Your task to perform on an android device: turn on location history Image 0: 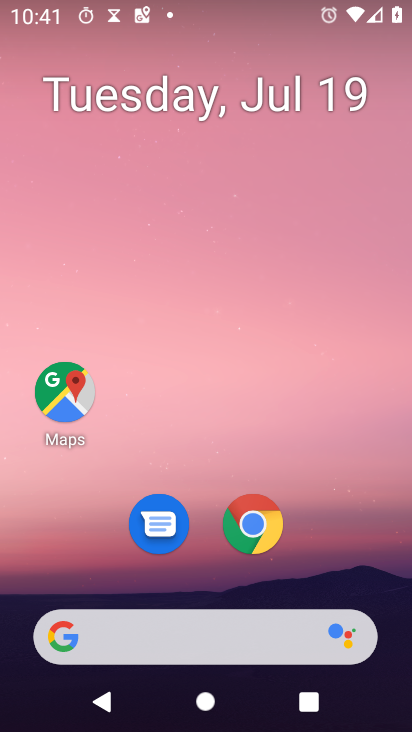
Step 0: click (70, 388)
Your task to perform on an android device: turn on location history Image 1: 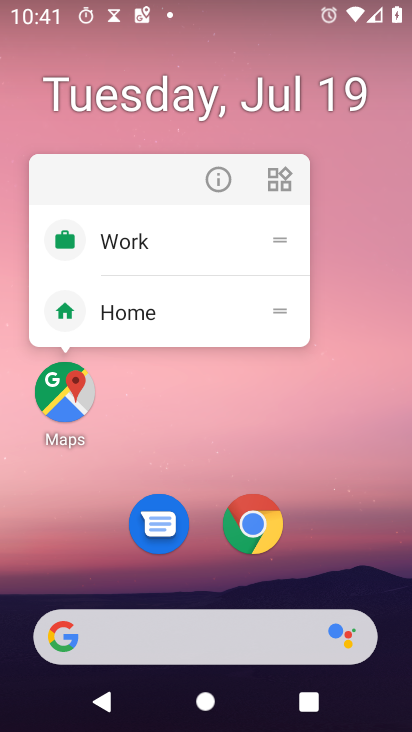
Step 1: click (65, 393)
Your task to perform on an android device: turn on location history Image 2: 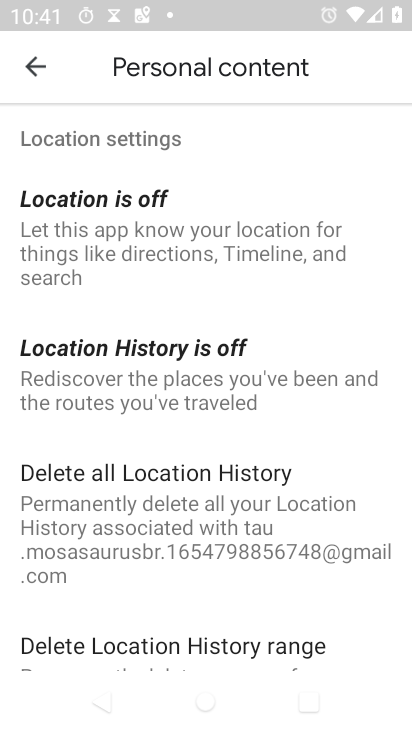
Step 2: click (179, 363)
Your task to perform on an android device: turn on location history Image 3: 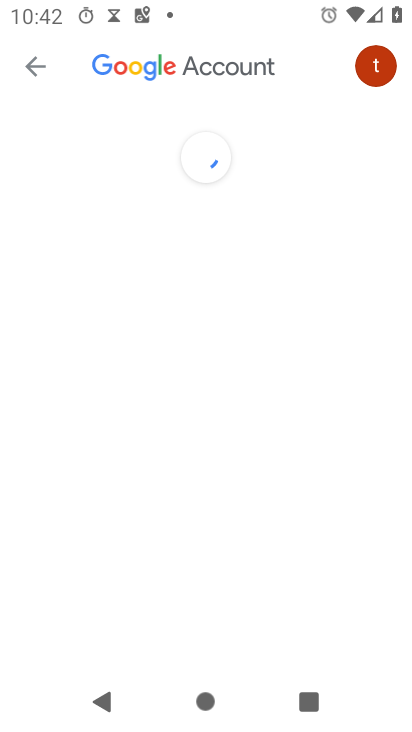
Step 3: drag from (287, 595) to (332, 92)
Your task to perform on an android device: turn on location history Image 4: 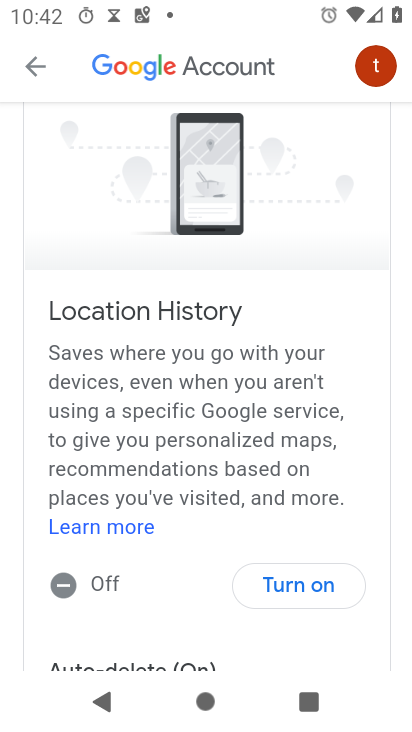
Step 4: drag from (242, 519) to (344, 152)
Your task to perform on an android device: turn on location history Image 5: 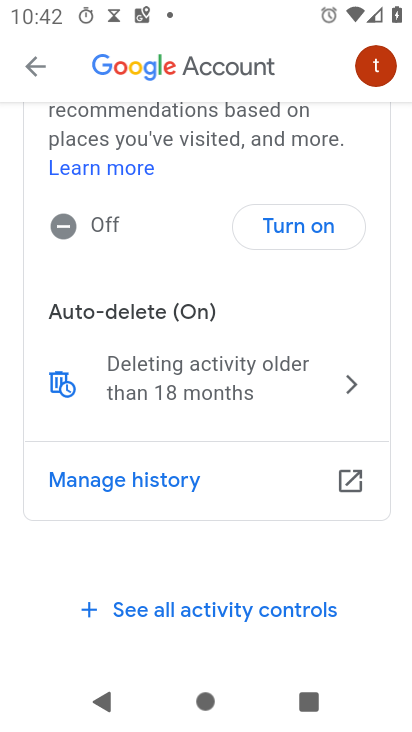
Step 5: click (304, 233)
Your task to perform on an android device: turn on location history Image 6: 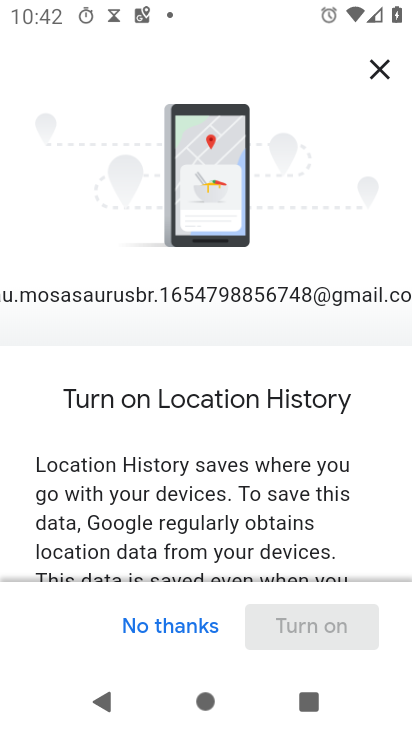
Step 6: drag from (222, 539) to (371, 28)
Your task to perform on an android device: turn on location history Image 7: 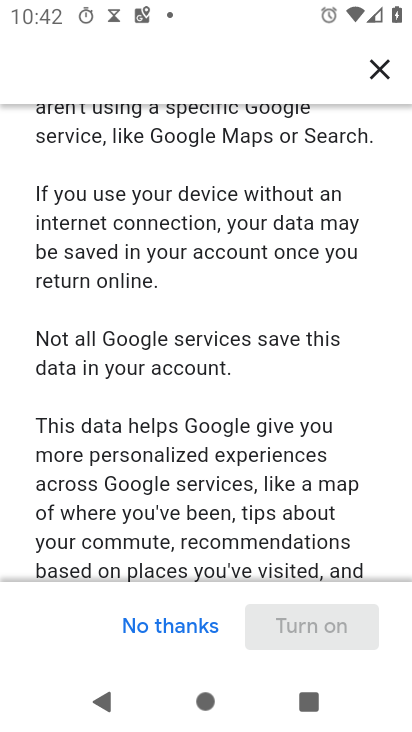
Step 7: drag from (280, 513) to (375, 50)
Your task to perform on an android device: turn on location history Image 8: 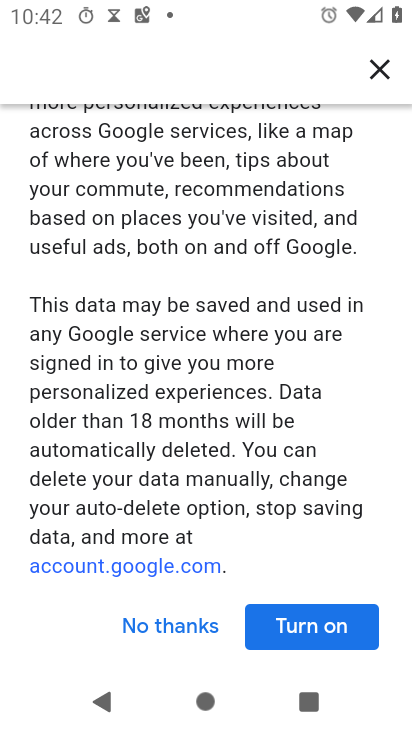
Step 8: click (311, 628)
Your task to perform on an android device: turn on location history Image 9: 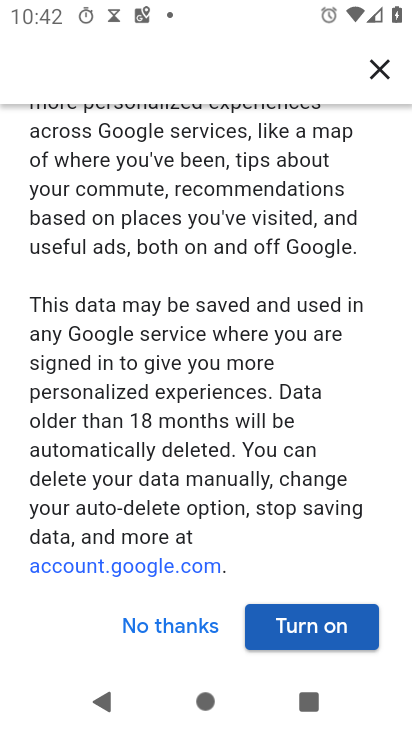
Step 9: click (311, 629)
Your task to perform on an android device: turn on location history Image 10: 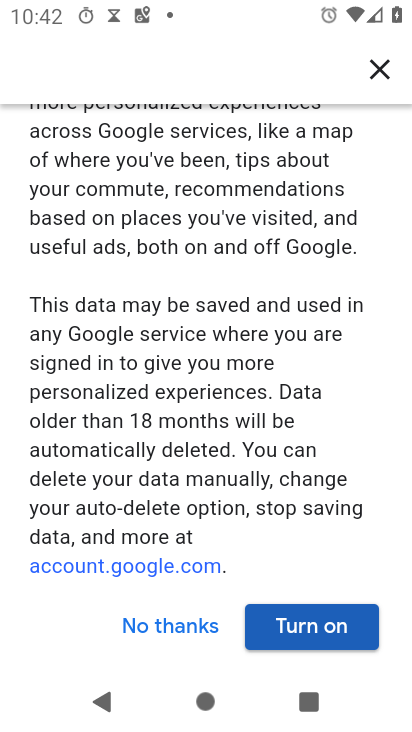
Step 10: click (311, 628)
Your task to perform on an android device: turn on location history Image 11: 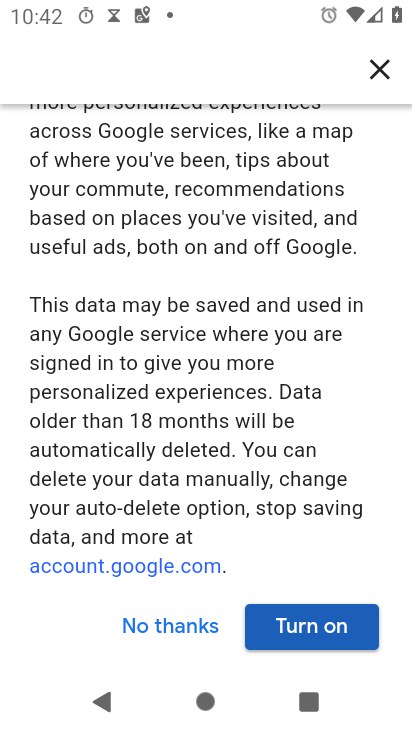
Step 11: click (323, 629)
Your task to perform on an android device: turn on location history Image 12: 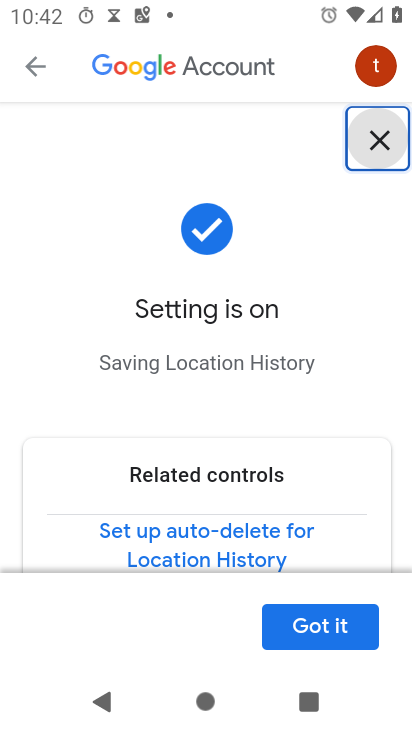
Step 12: click (310, 630)
Your task to perform on an android device: turn on location history Image 13: 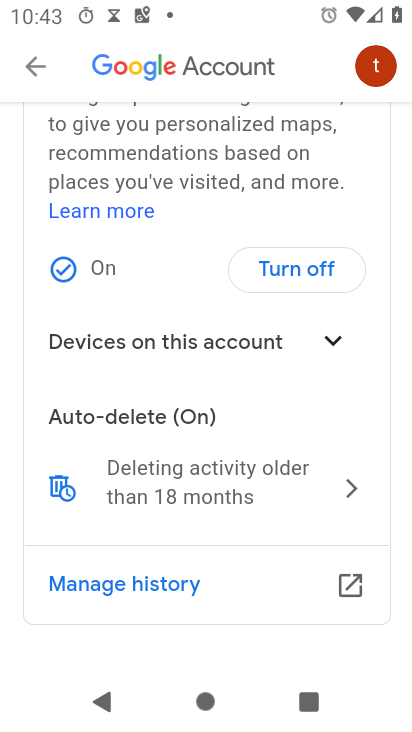
Step 13: task complete